Your task to perform on an android device: Open Google Maps Image 0: 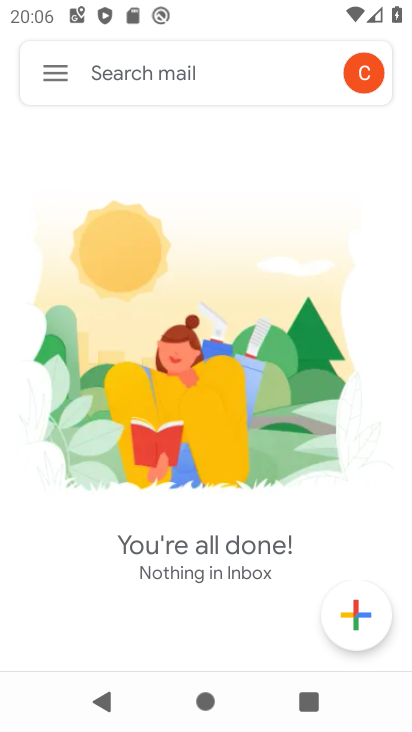
Step 0: press home button
Your task to perform on an android device: Open Google Maps Image 1: 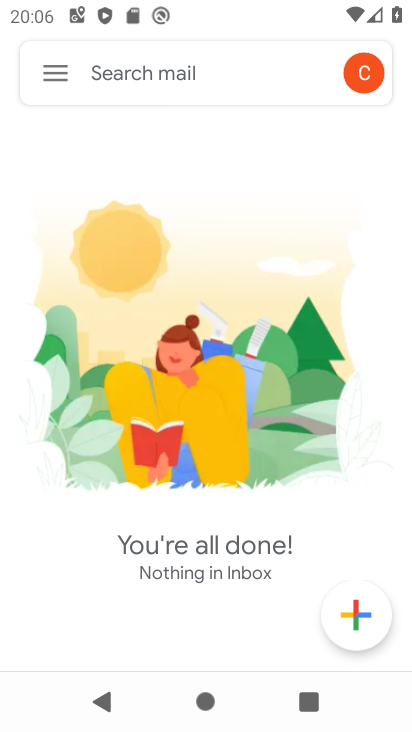
Step 1: press home button
Your task to perform on an android device: Open Google Maps Image 2: 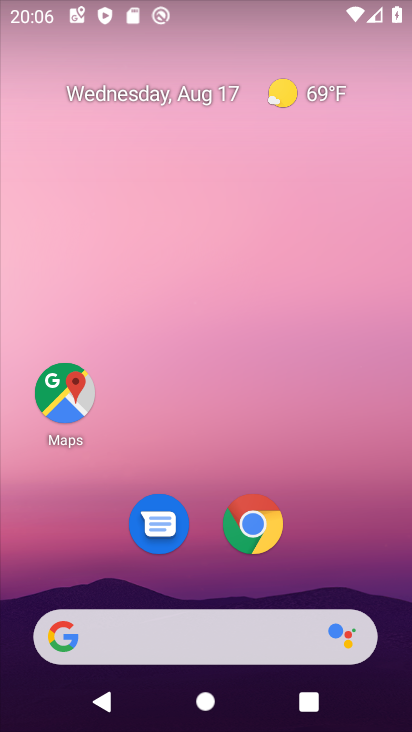
Step 2: click (69, 382)
Your task to perform on an android device: Open Google Maps Image 3: 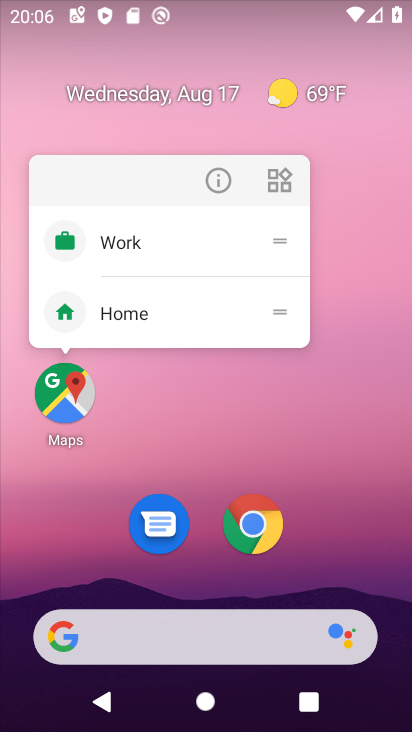
Step 3: click (67, 392)
Your task to perform on an android device: Open Google Maps Image 4: 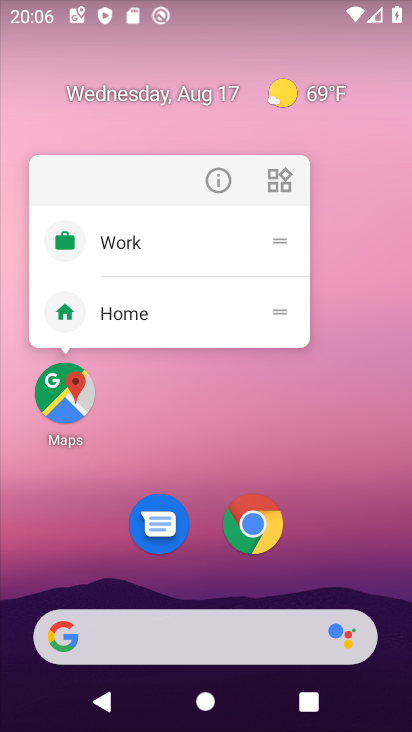
Step 4: click (67, 391)
Your task to perform on an android device: Open Google Maps Image 5: 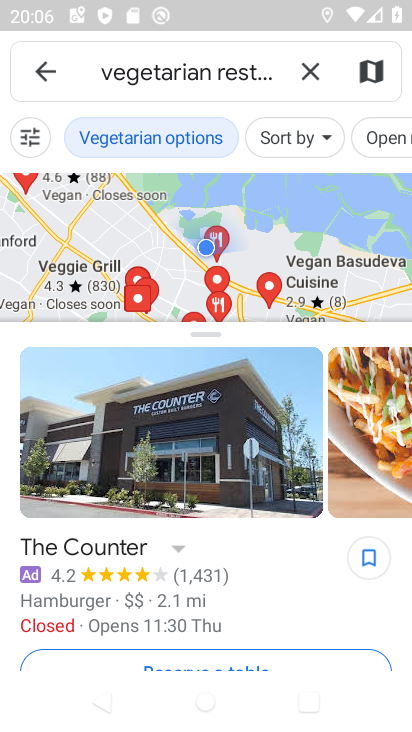
Step 5: click (146, 237)
Your task to perform on an android device: Open Google Maps Image 6: 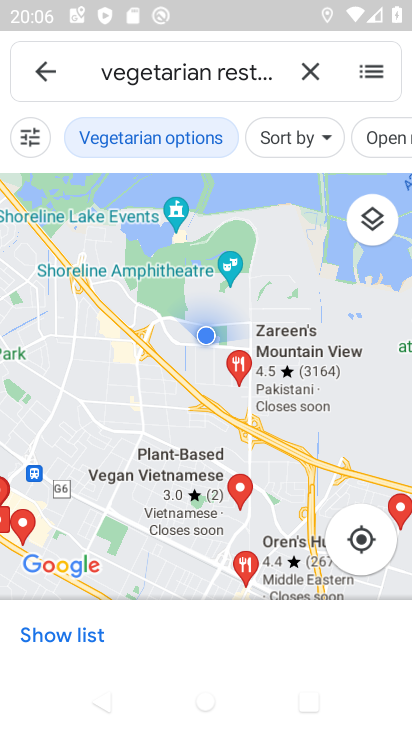
Step 6: click (46, 64)
Your task to perform on an android device: Open Google Maps Image 7: 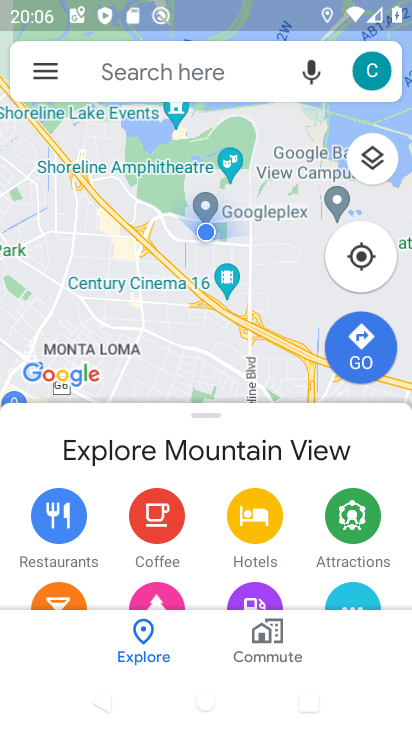
Step 7: task complete